Your task to perform on an android device: change notification settings in the gmail app Image 0: 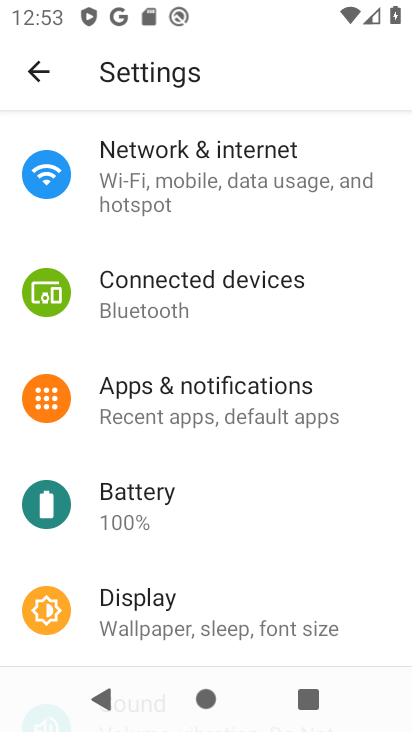
Step 0: press home button
Your task to perform on an android device: change notification settings in the gmail app Image 1: 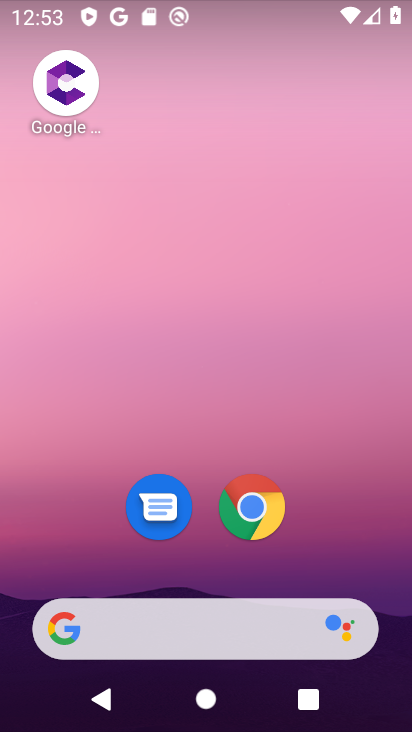
Step 1: drag from (119, 548) to (174, 197)
Your task to perform on an android device: change notification settings in the gmail app Image 2: 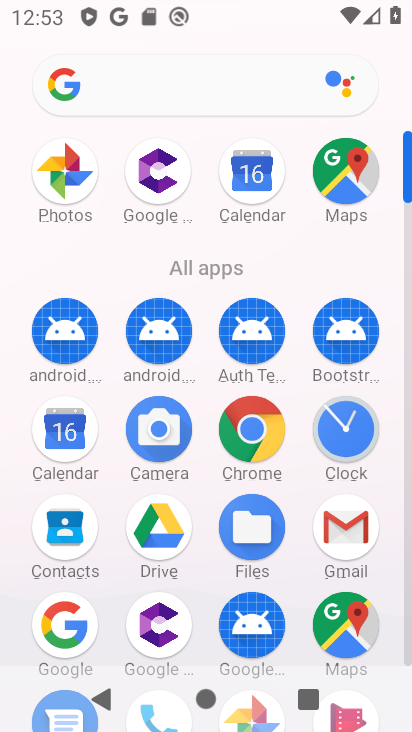
Step 2: drag from (229, 512) to (258, 369)
Your task to perform on an android device: change notification settings in the gmail app Image 3: 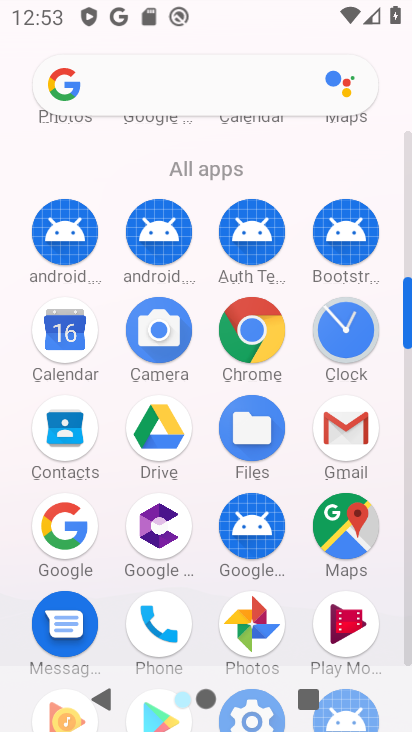
Step 3: click (347, 435)
Your task to perform on an android device: change notification settings in the gmail app Image 4: 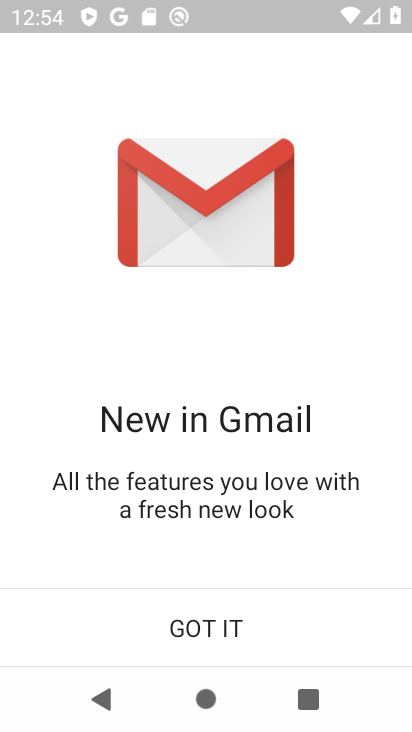
Step 4: click (223, 656)
Your task to perform on an android device: change notification settings in the gmail app Image 5: 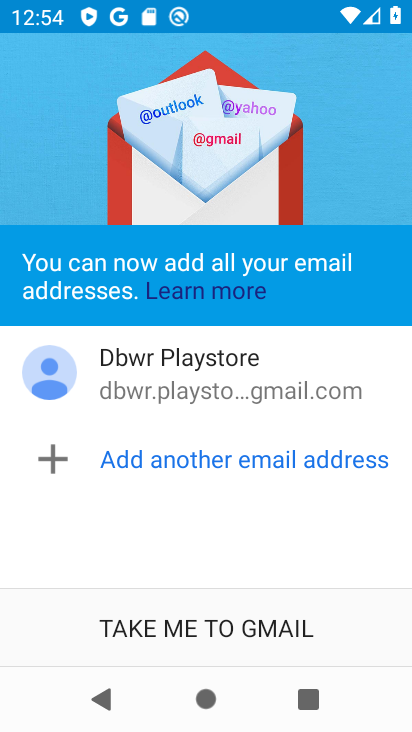
Step 5: click (236, 646)
Your task to perform on an android device: change notification settings in the gmail app Image 6: 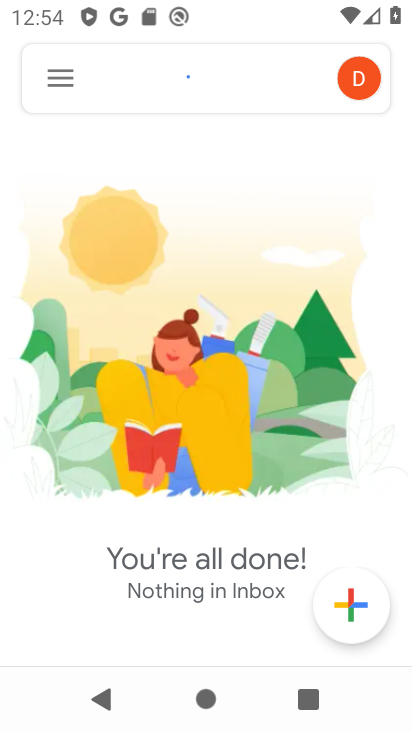
Step 6: click (61, 73)
Your task to perform on an android device: change notification settings in the gmail app Image 7: 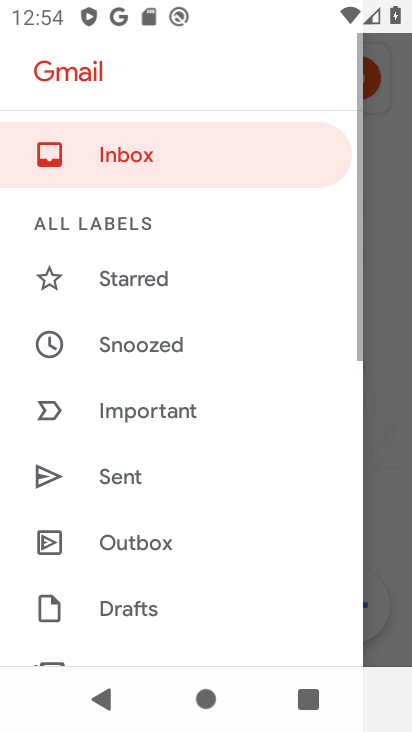
Step 7: drag from (130, 570) to (243, 194)
Your task to perform on an android device: change notification settings in the gmail app Image 8: 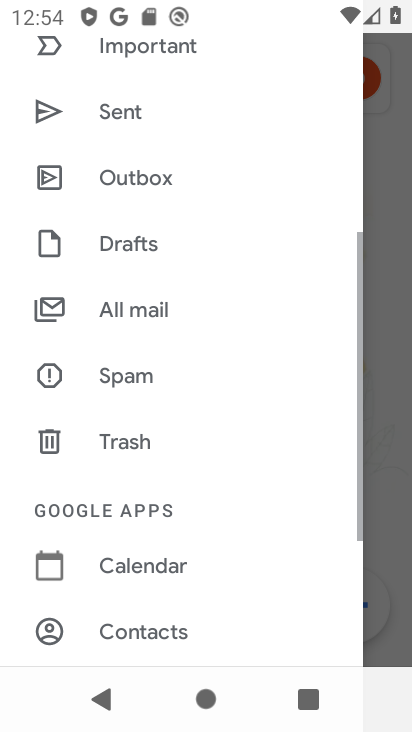
Step 8: drag from (203, 560) to (275, 137)
Your task to perform on an android device: change notification settings in the gmail app Image 9: 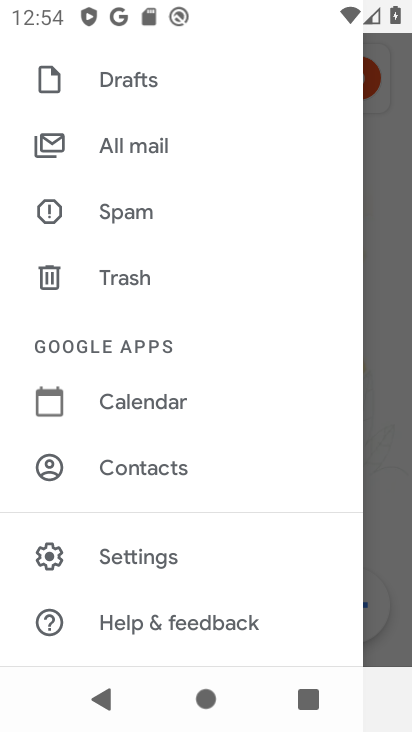
Step 9: click (169, 564)
Your task to perform on an android device: change notification settings in the gmail app Image 10: 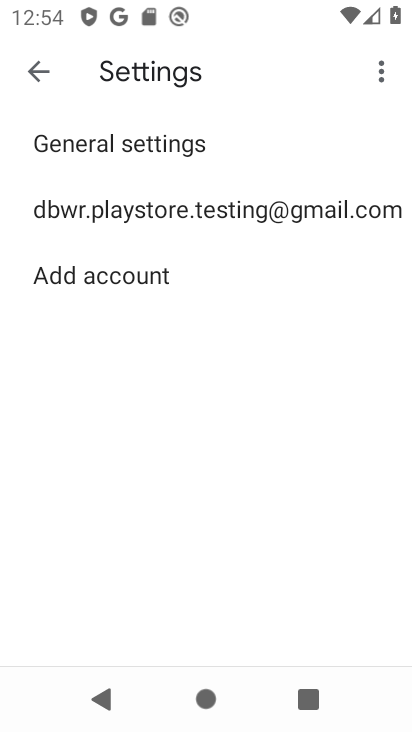
Step 10: click (212, 245)
Your task to perform on an android device: change notification settings in the gmail app Image 11: 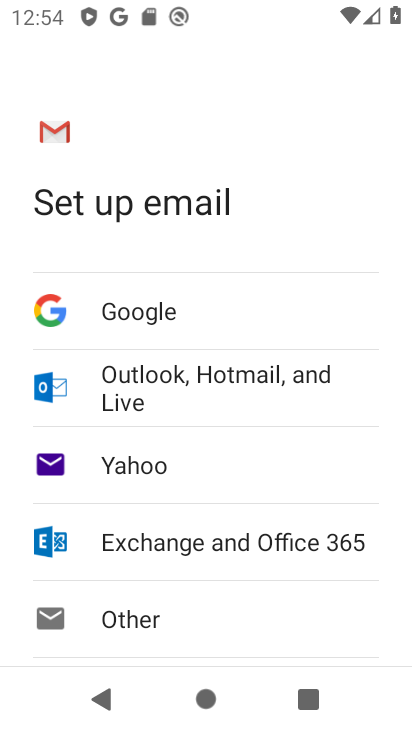
Step 11: press back button
Your task to perform on an android device: change notification settings in the gmail app Image 12: 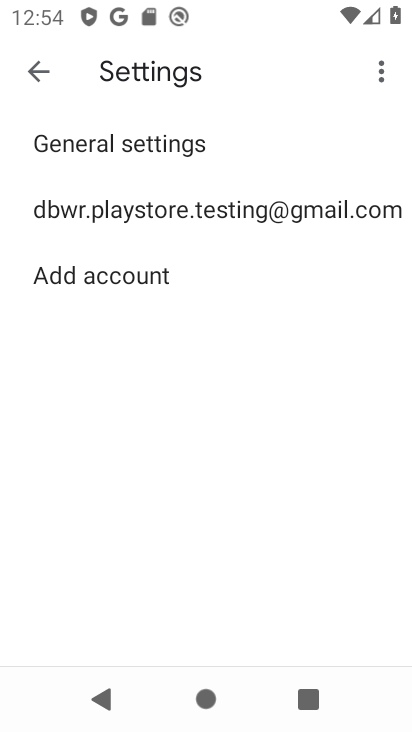
Step 12: click (318, 216)
Your task to perform on an android device: change notification settings in the gmail app Image 13: 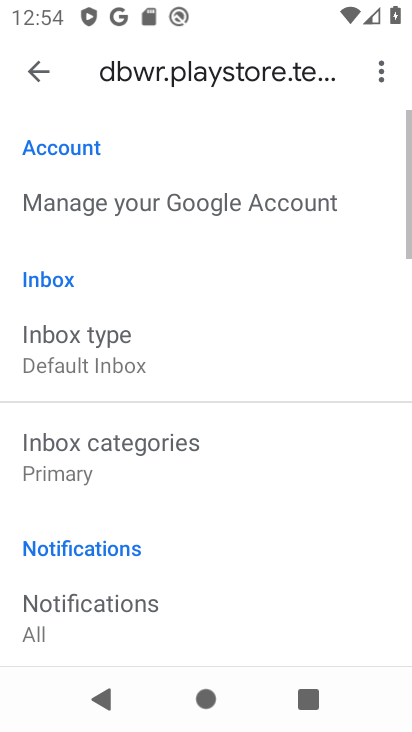
Step 13: drag from (224, 506) to (282, 194)
Your task to perform on an android device: change notification settings in the gmail app Image 14: 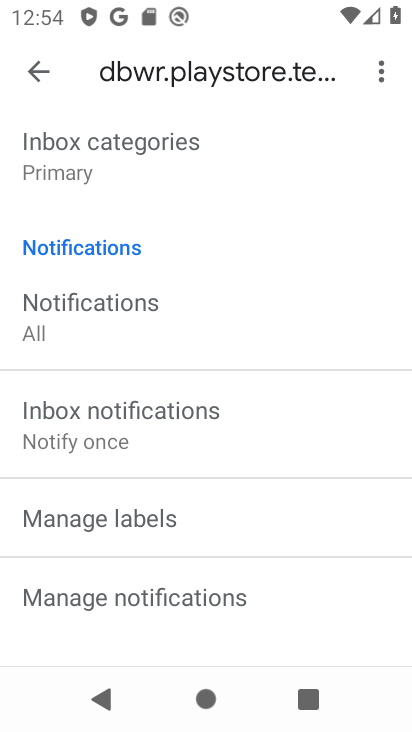
Step 14: click (213, 611)
Your task to perform on an android device: change notification settings in the gmail app Image 15: 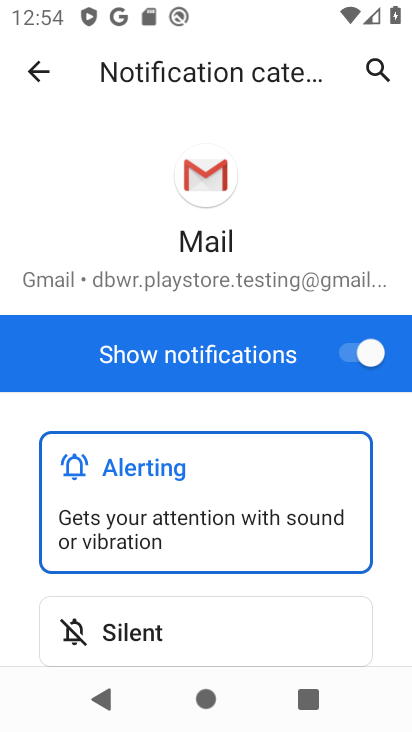
Step 15: drag from (190, 570) to (228, 358)
Your task to perform on an android device: change notification settings in the gmail app Image 16: 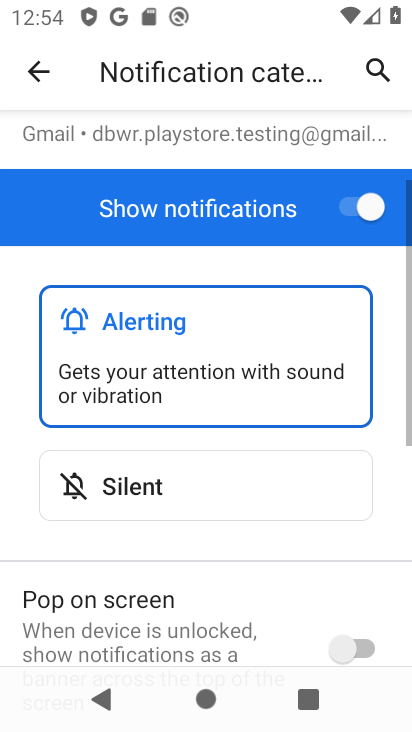
Step 16: click (197, 485)
Your task to perform on an android device: change notification settings in the gmail app Image 17: 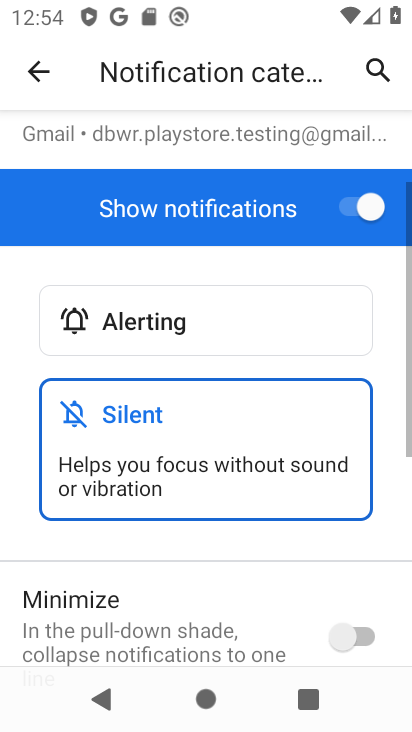
Step 17: click (373, 634)
Your task to perform on an android device: change notification settings in the gmail app Image 18: 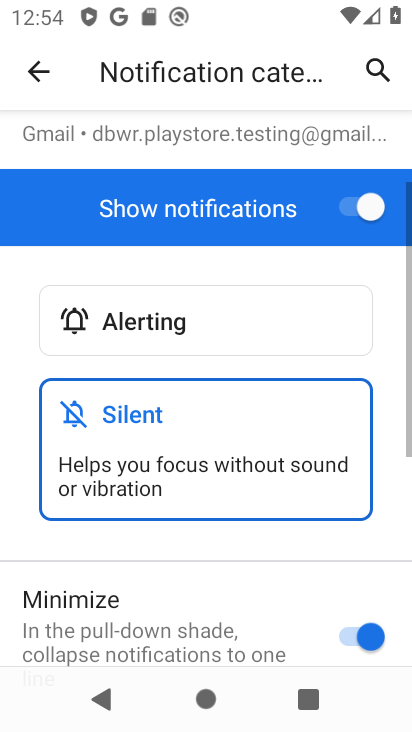
Step 18: drag from (191, 619) to (274, 261)
Your task to perform on an android device: change notification settings in the gmail app Image 19: 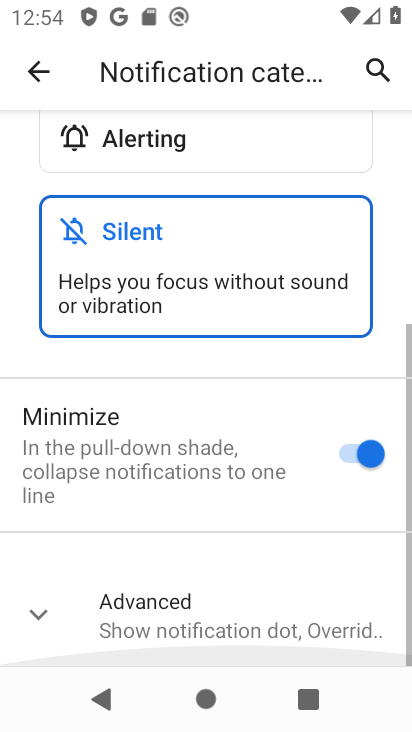
Step 19: click (191, 603)
Your task to perform on an android device: change notification settings in the gmail app Image 20: 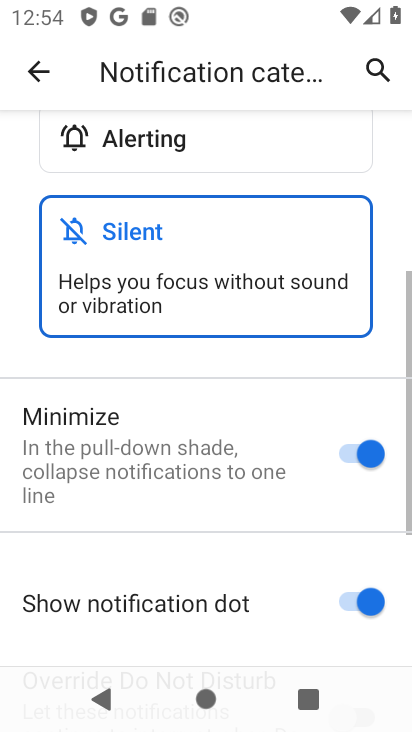
Step 20: drag from (172, 467) to (218, 296)
Your task to perform on an android device: change notification settings in the gmail app Image 21: 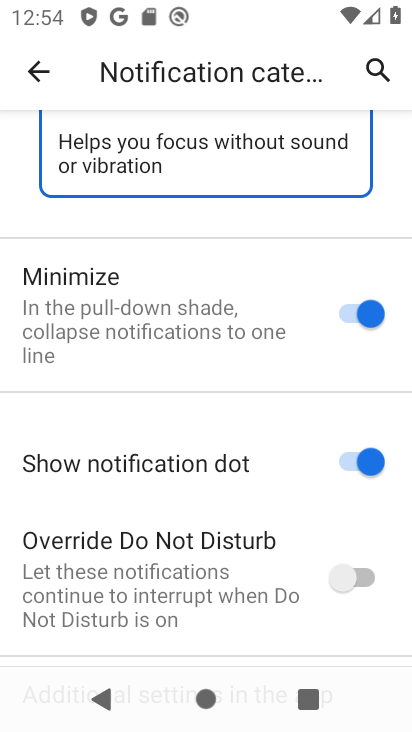
Step 21: click (350, 458)
Your task to perform on an android device: change notification settings in the gmail app Image 22: 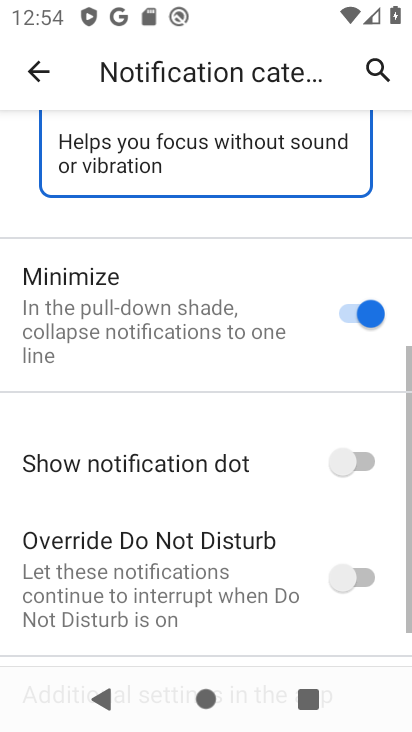
Step 22: click (370, 579)
Your task to perform on an android device: change notification settings in the gmail app Image 23: 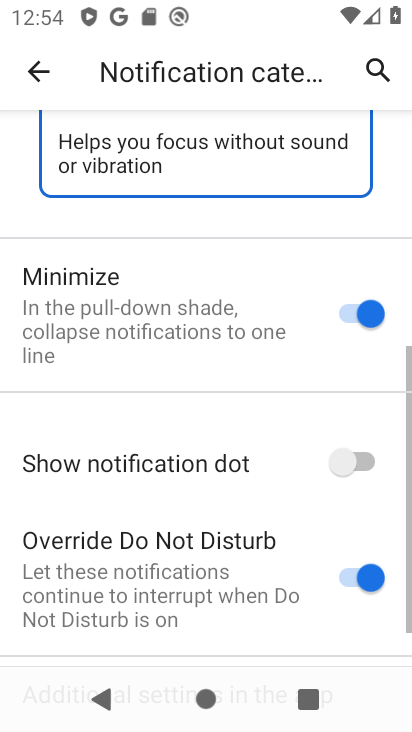
Step 23: task complete